Your task to perform on an android device: turn on bluetooth scan Image 0: 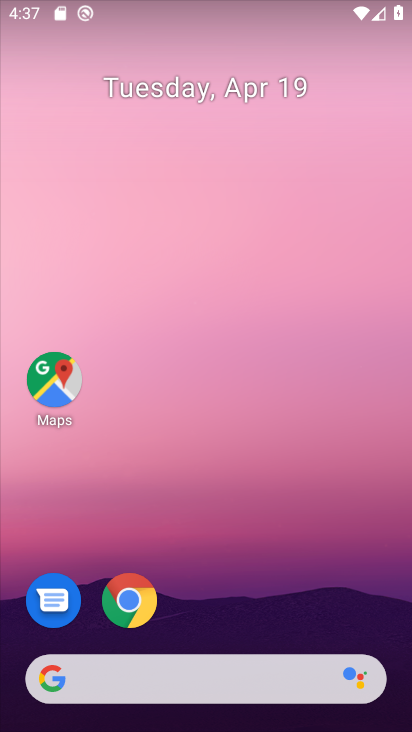
Step 0: drag from (135, 204) to (127, 94)
Your task to perform on an android device: turn on bluetooth scan Image 1: 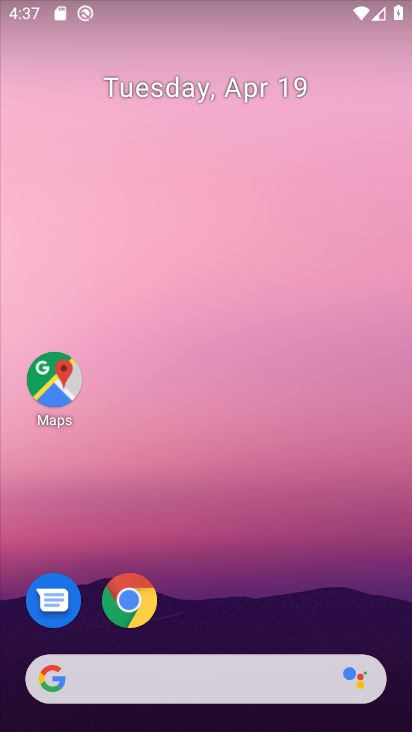
Step 1: drag from (252, 286) to (251, 12)
Your task to perform on an android device: turn on bluetooth scan Image 2: 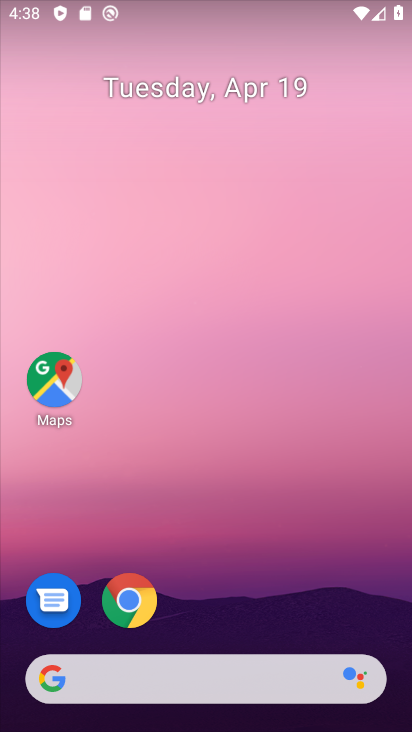
Step 2: drag from (240, 620) to (148, 43)
Your task to perform on an android device: turn on bluetooth scan Image 3: 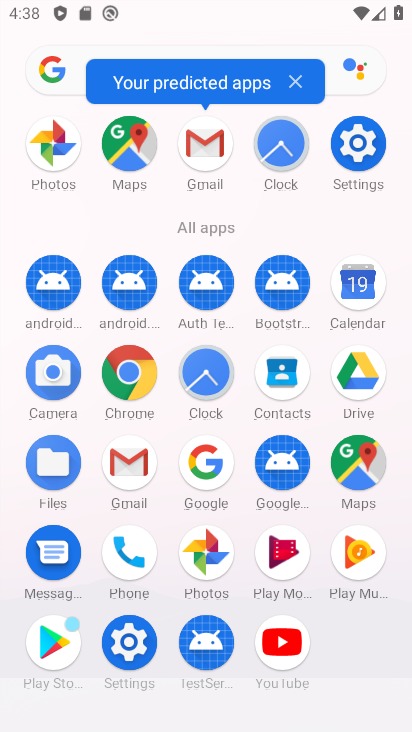
Step 3: click (362, 139)
Your task to perform on an android device: turn on bluetooth scan Image 4: 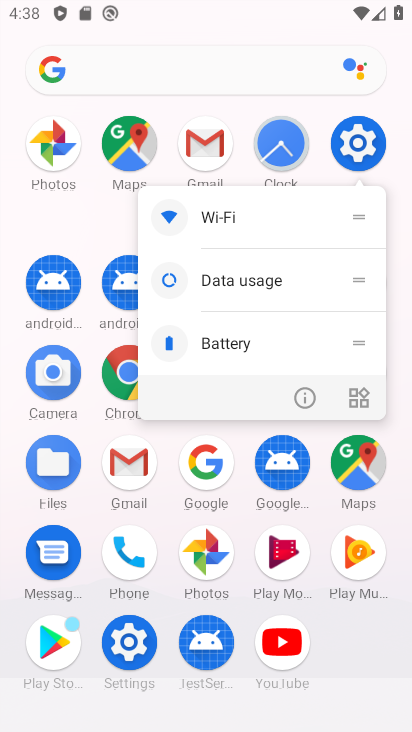
Step 4: click (365, 149)
Your task to perform on an android device: turn on bluetooth scan Image 5: 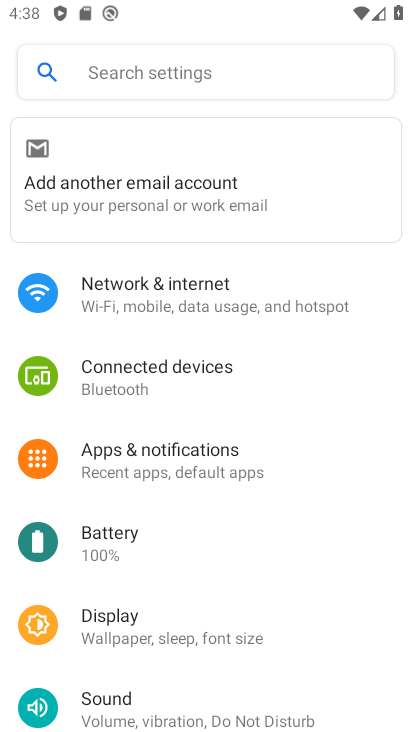
Step 5: click (178, 298)
Your task to perform on an android device: turn on bluetooth scan Image 6: 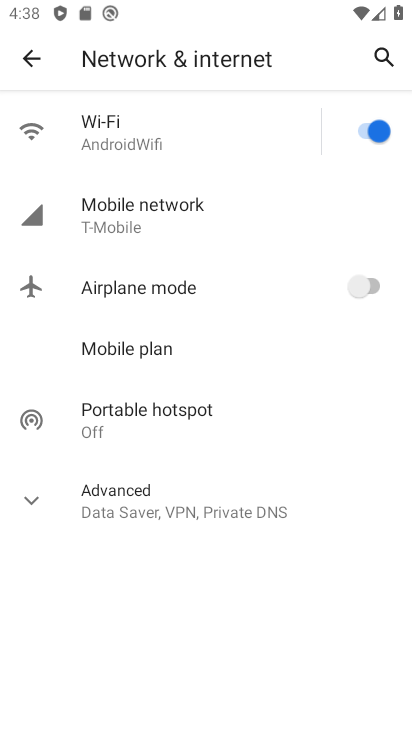
Step 6: click (28, 59)
Your task to perform on an android device: turn on bluetooth scan Image 7: 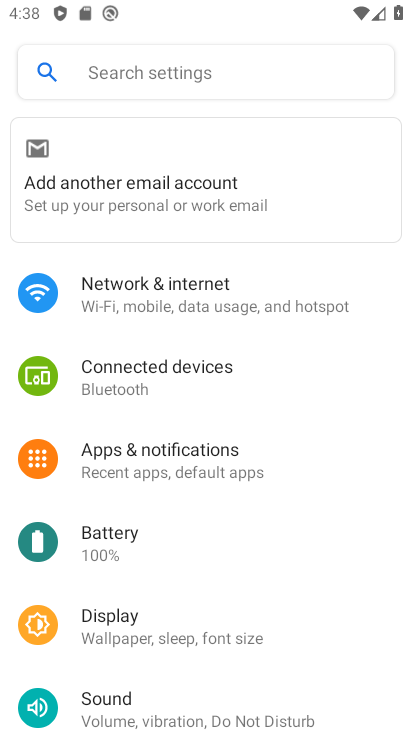
Step 7: drag from (180, 652) to (169, 149)
Your task to perform on an android device: turn on bluetooth scan Image 8: 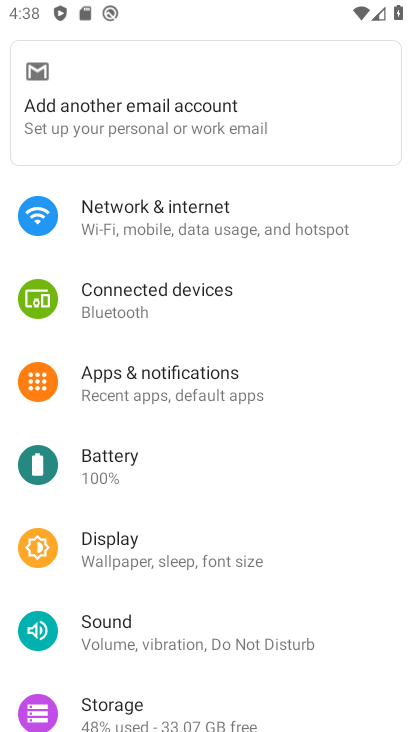
Step 8: drag from (146, 673) to (112, 192)
Your task to perform on an android device: turn on bluetooth scan Image 9: 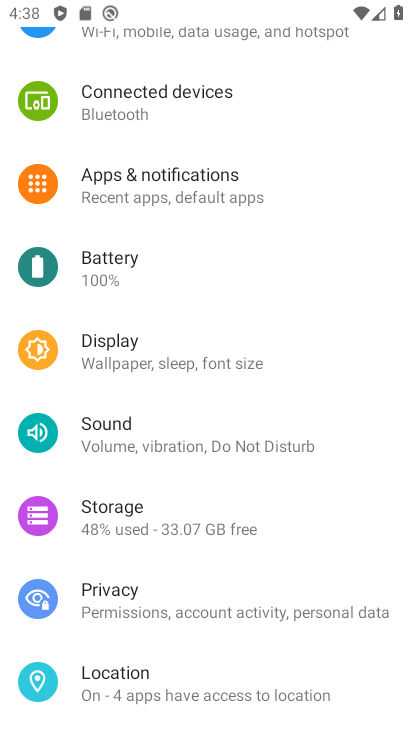
Step 9: drag from (299, 547) to (273, 265)
Your task to perform on an android device: turn on bluetooth scan Image 10: 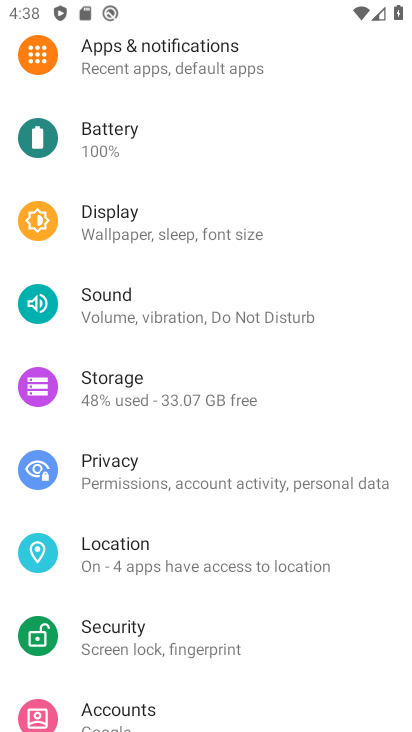
Step 10: click (270, 552)
Your task to perform on an android device: turn on bluetooth scan Image 11: 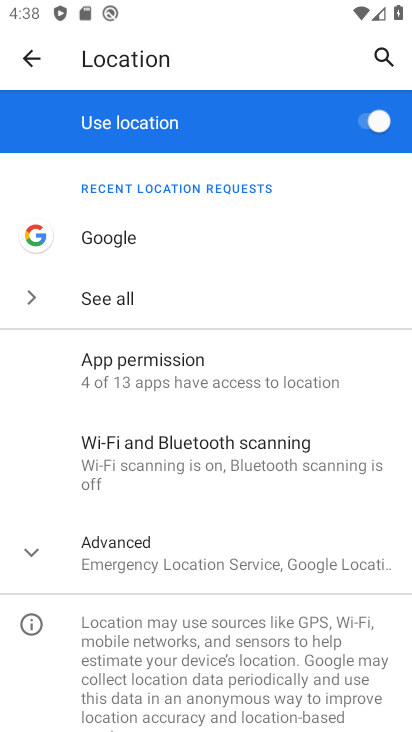
Step 11: click (219, 453)
Your task to perform on an android device: turn on bluetooth scan Image 12: 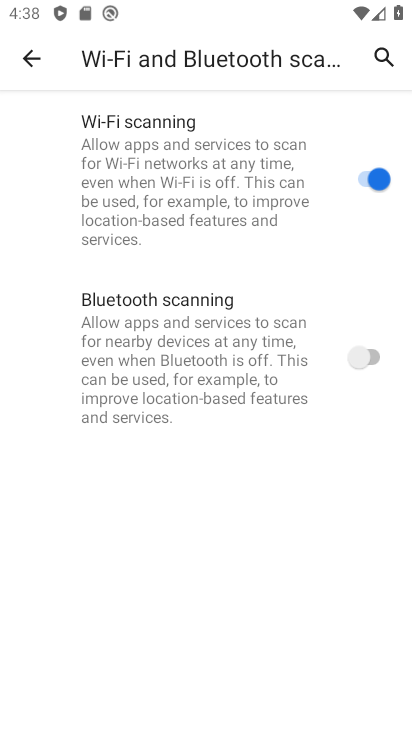
Step 12: click (351, 334)
Your task to perform on an android device: turn on bluetooth scan Image 13: 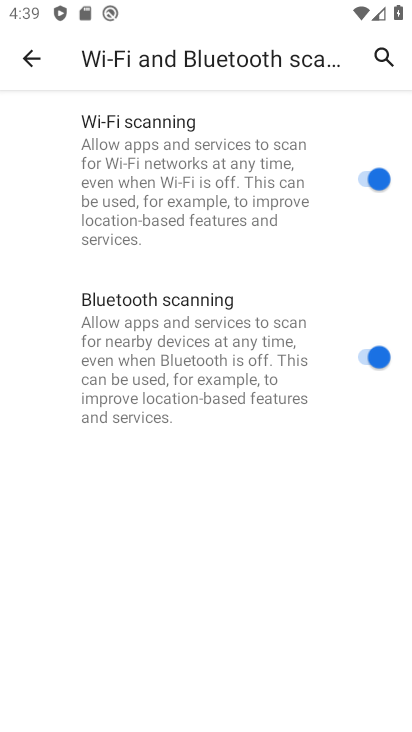
Step 13: click (365, 348)
Your task to perform on an android device: turn on bluetooth scan Image 14: 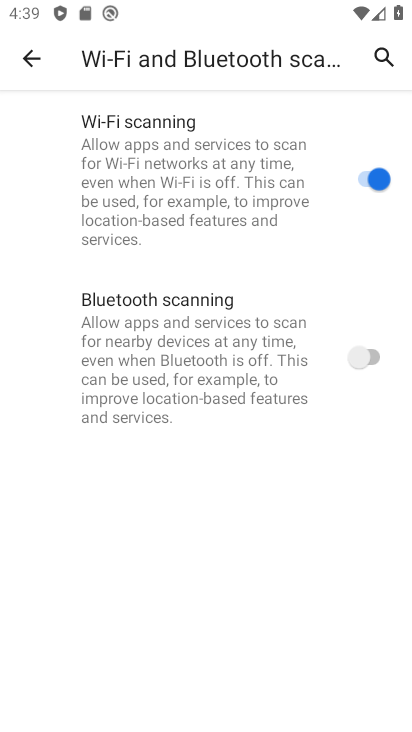
Step 14: task complete